Your task to perform on an android device: Is it going to rain tomorrow? Image 0: 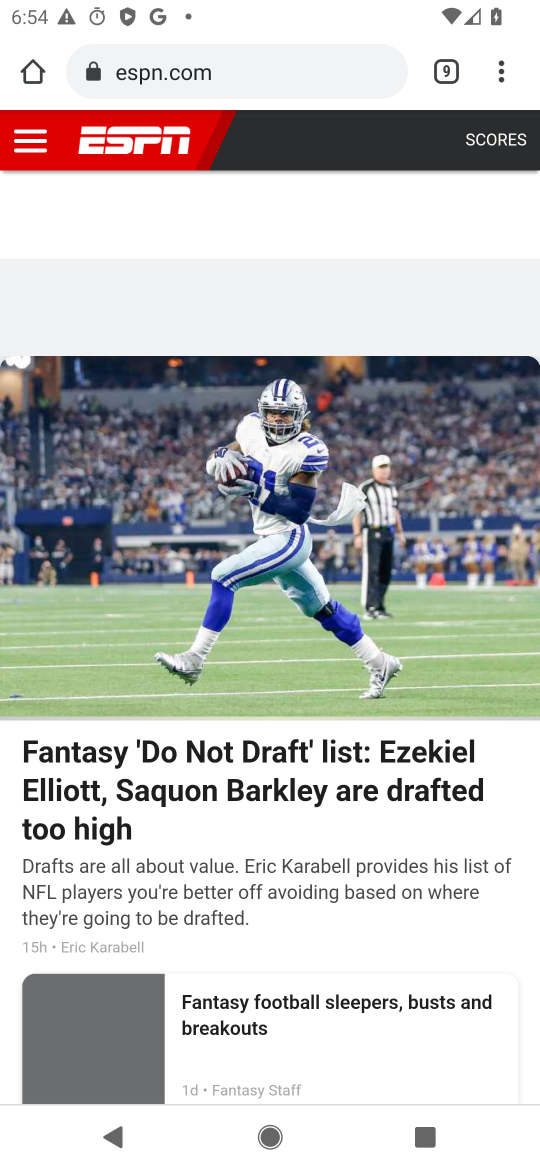
Step 0: press home button
Your task to perform on an android device: Is it going to rain tomorrow? Image 1: 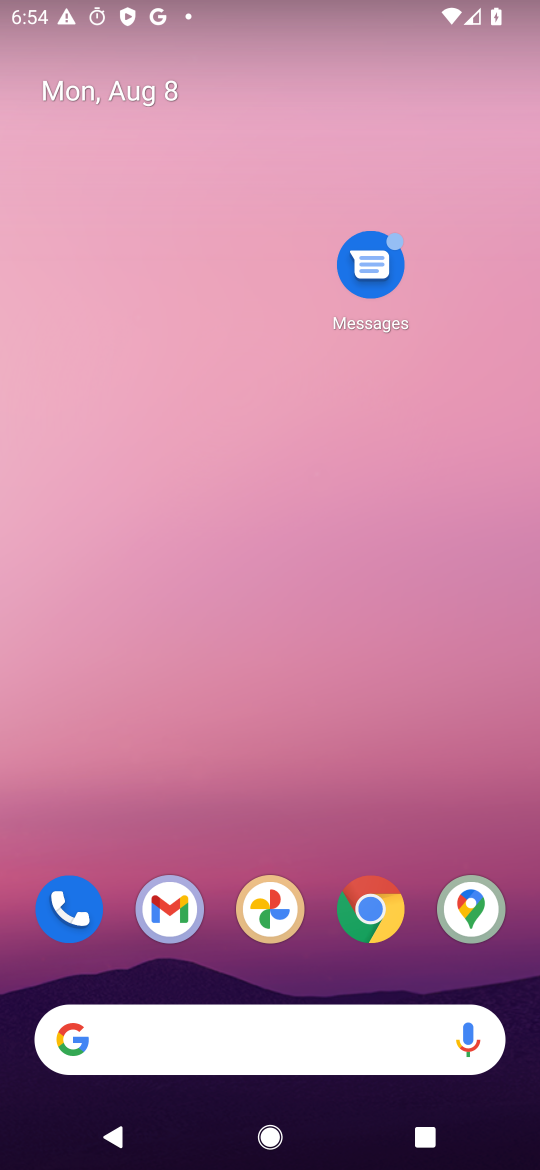
Step 1: click (178, 1040)
Your task to perform on an android device: Is it going to rain tomorrow? Image 2: 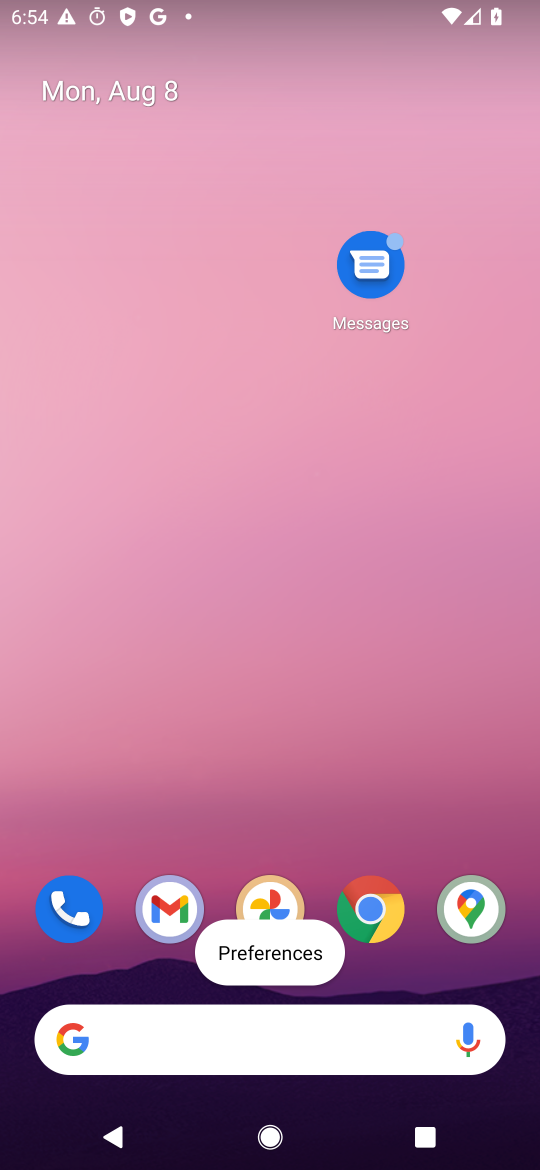
Step 2: click (181, 1039)
Your task to perform on an android device: Is it going to rain tomorrow? Image 3: 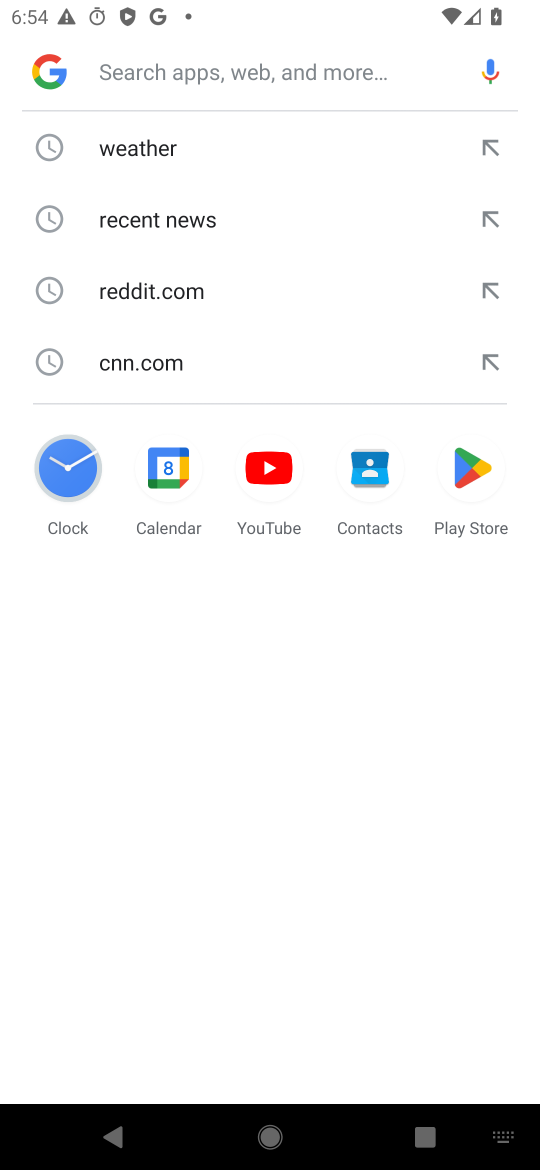
Step 3: click (153, 145)
Your task to perform on an android device: Is it going to rain tomorrow? Image 4: 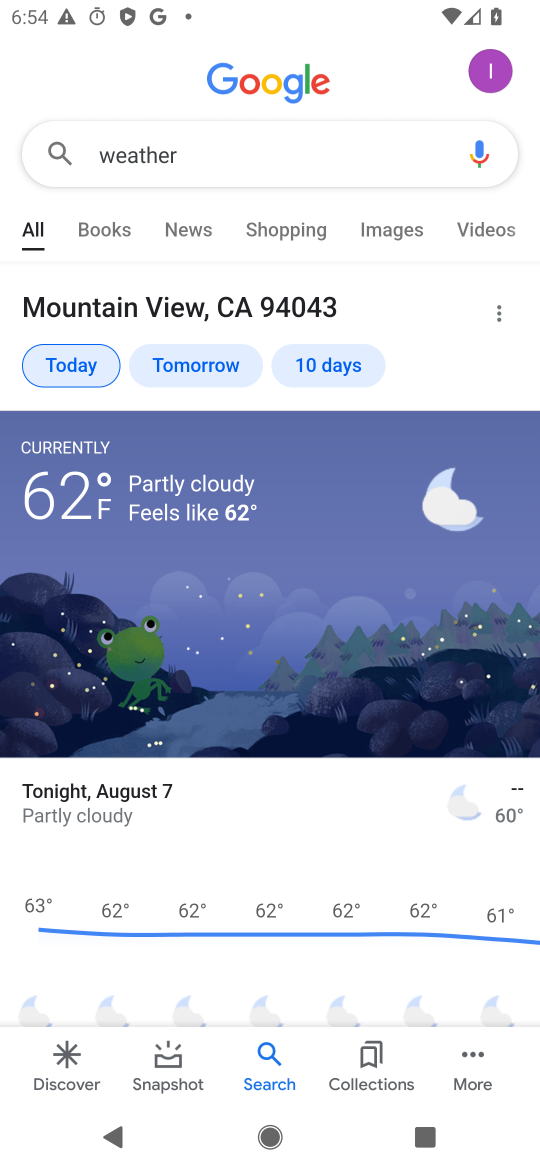
Step 4: click (205, 364)
Your task to perform on an android device: Is it going to rain tomorrow? Image 5: 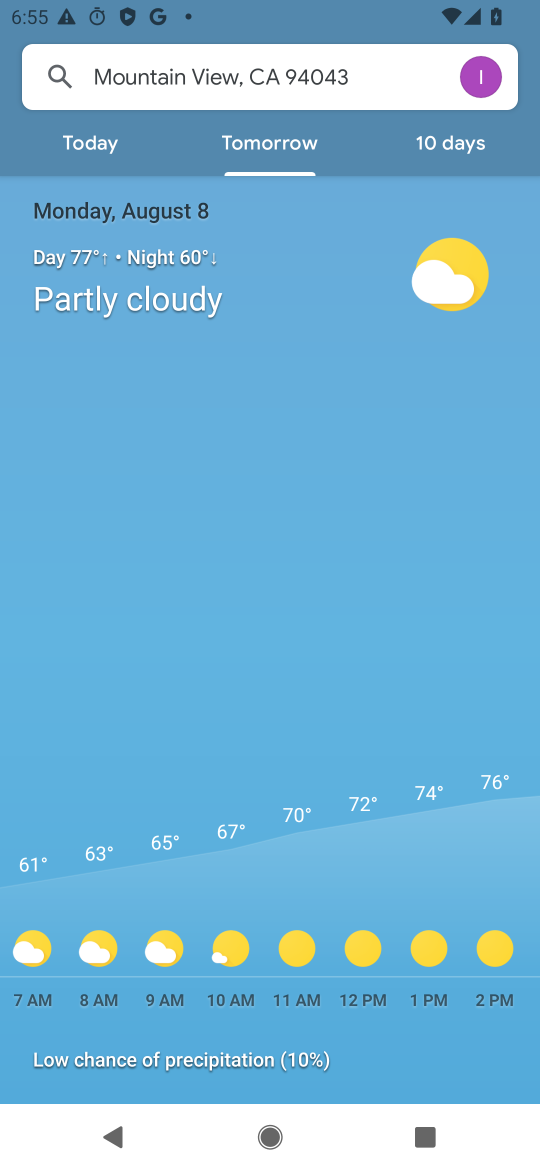
Step 5: task complete